Your task to perform on an android device: toggle pop-ups in chrome Image 0: 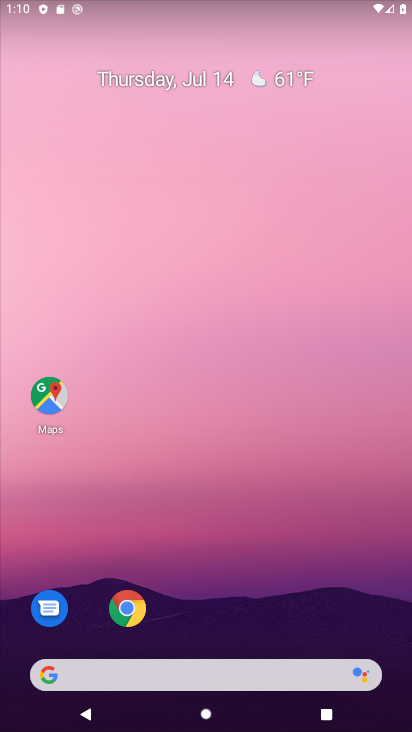
Step 0: click (124, 612)
Your task to perform on an android device: toggle pop-ups in chrome Image 1: 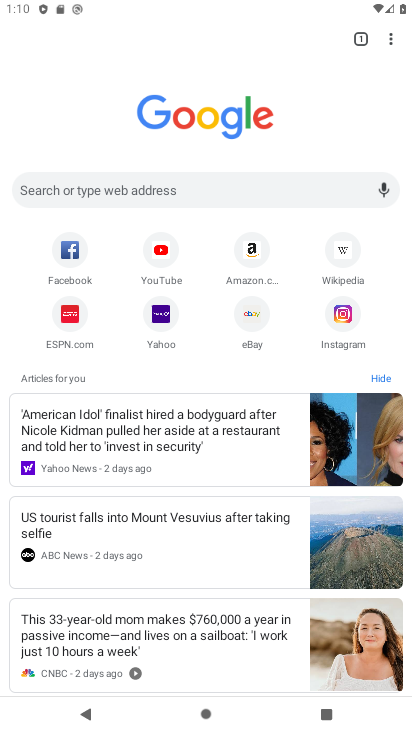
Step 1: click (384, 37)
Your task to perform on an android device: toggle pop-ups in chrome Image 2: 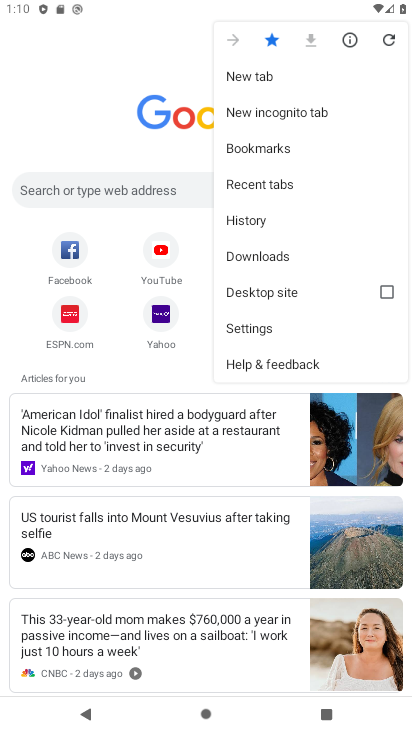
Step 2: click (252, 334)
Your task to perform on an android device: toggle pop-ups in chrome Image 3: 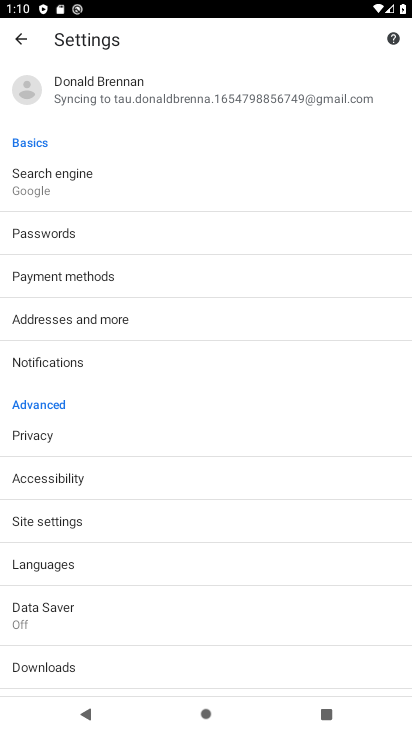
Step 3: drag from (125, 662) to (97, 303)
Your task to perform on an android device: toggle pop-ups in chrome Image 4: 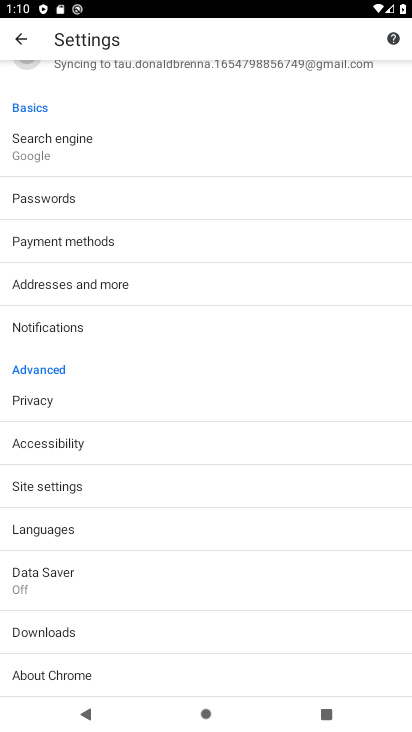
Step 4: click (53, 482)
Your task to perform on an android device: toggle pop-ups in chrome Image 5: 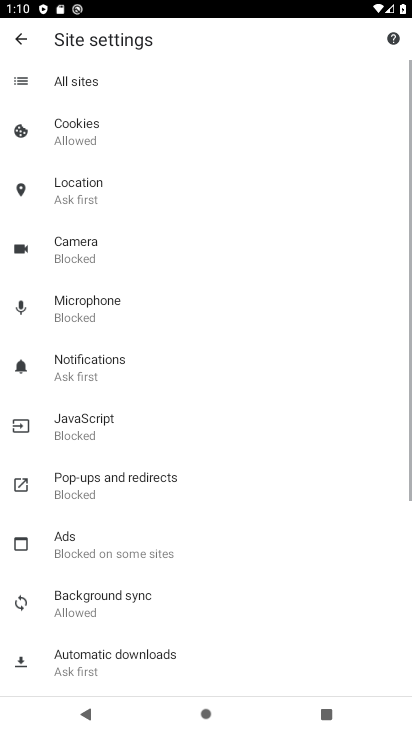
Step 5: click (109, 487)
Your task to perform on an android device: toggle pop-ups in chrome Image 6: 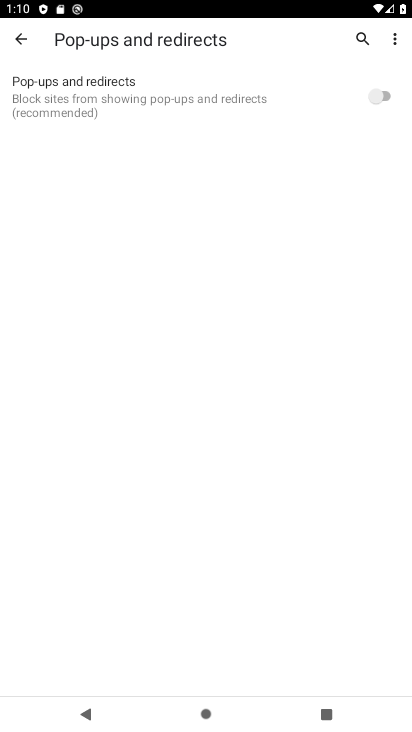
Step 6: click (384, 91)
Your task to perform on an android device: toggle pop-ups in chrome Image 7: 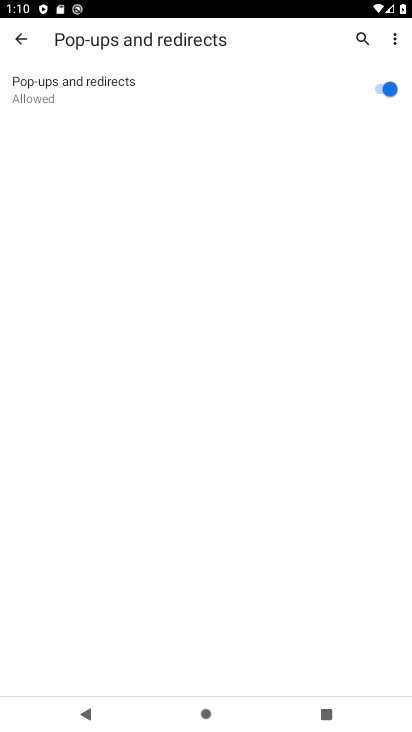
Step 7: task complete